Your task to perform on an android device: Open display settings Image 0: 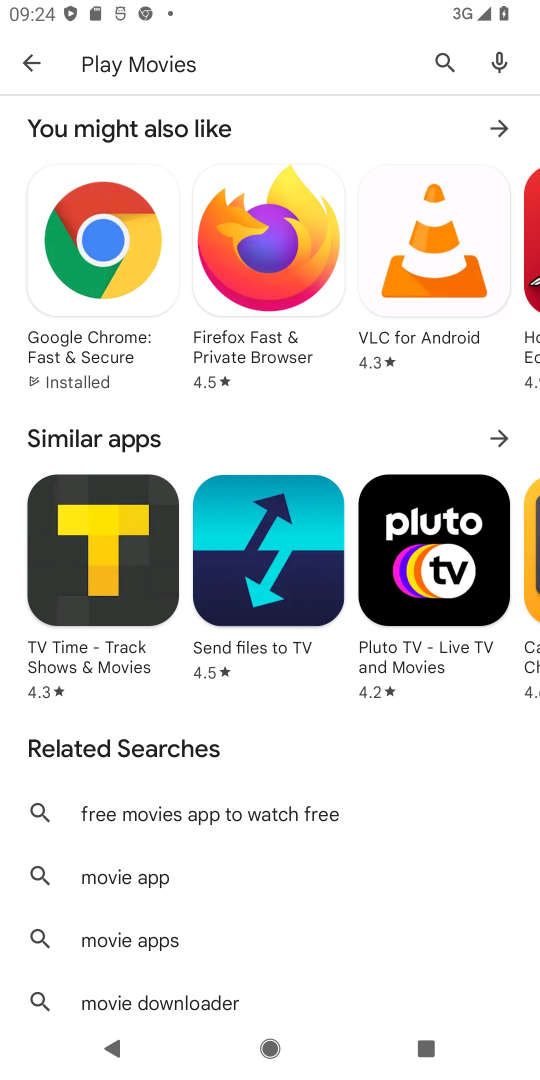
Step 0: press home button
Your task to perform on an android device: Open display settings Image 1: 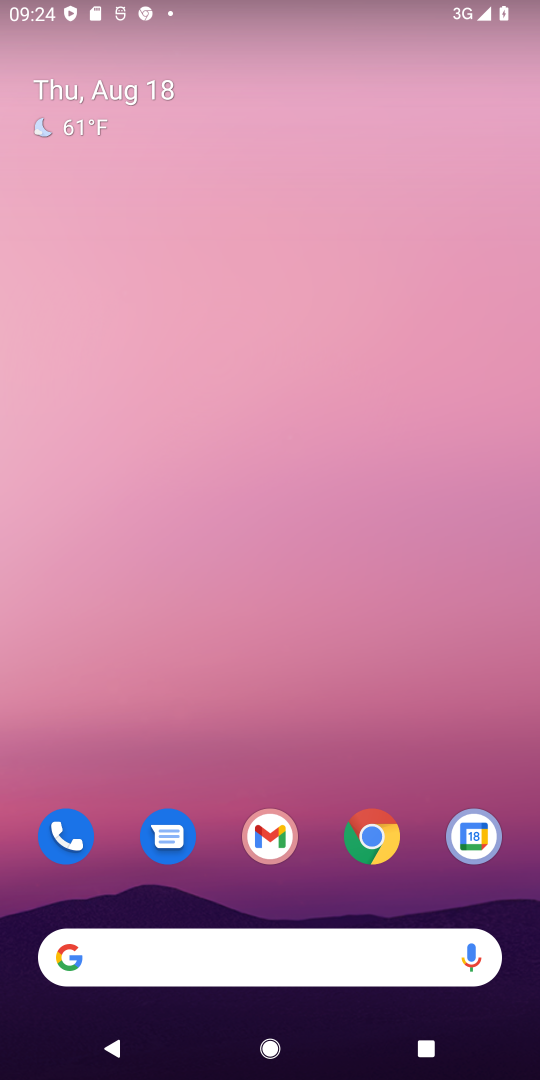
Step 1: drag from (417, 756) to (474, 106)
Your task to perform on an android device: Open display settings Image 2: 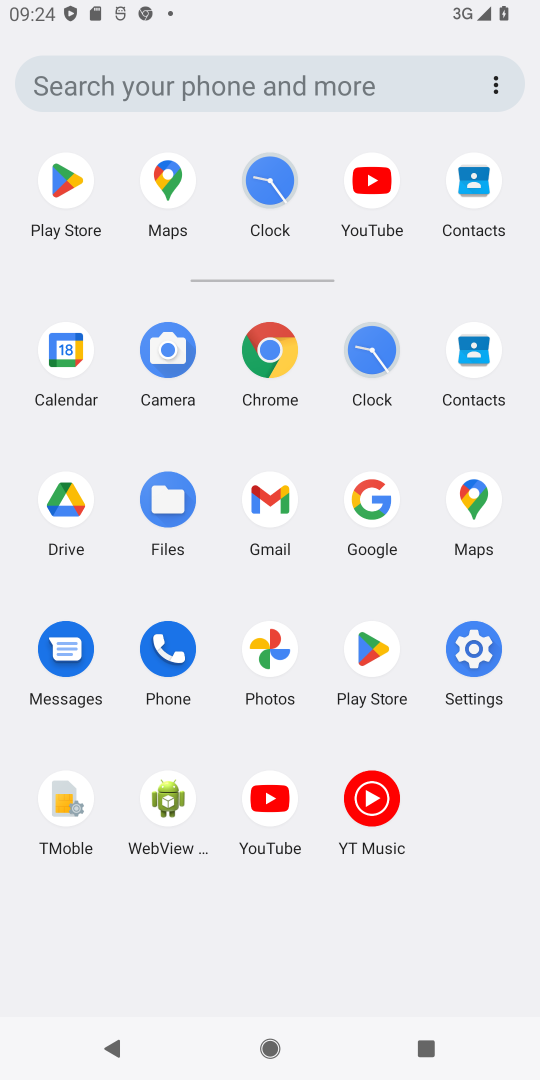
Step 2: click (484, 650)
Your task to perform on an android device: Open display settings Image 3: 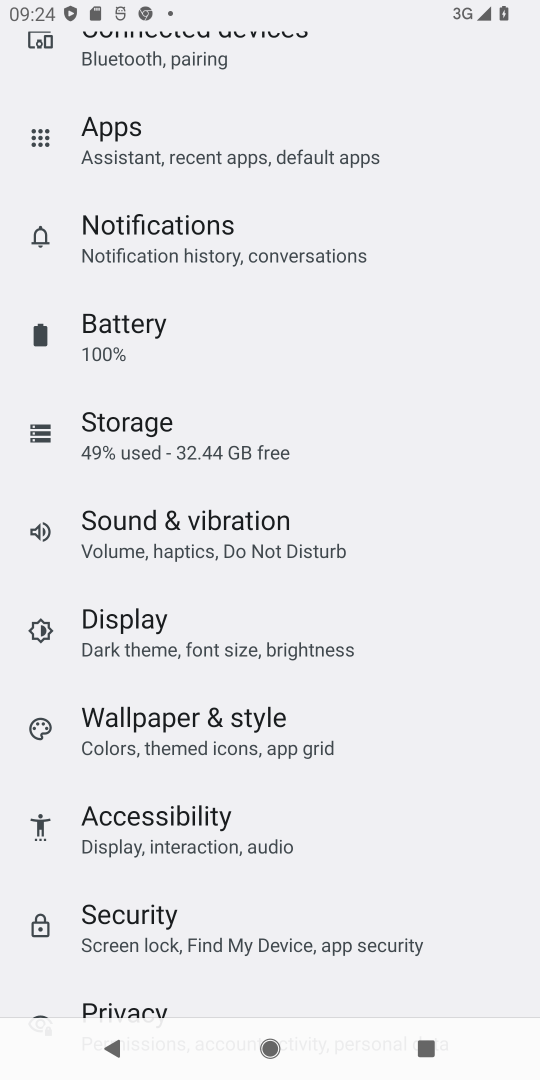
Step 3: drag from (243, 266) to (276, 814)
Your task to perform on an android device: Open display settings Image 4: 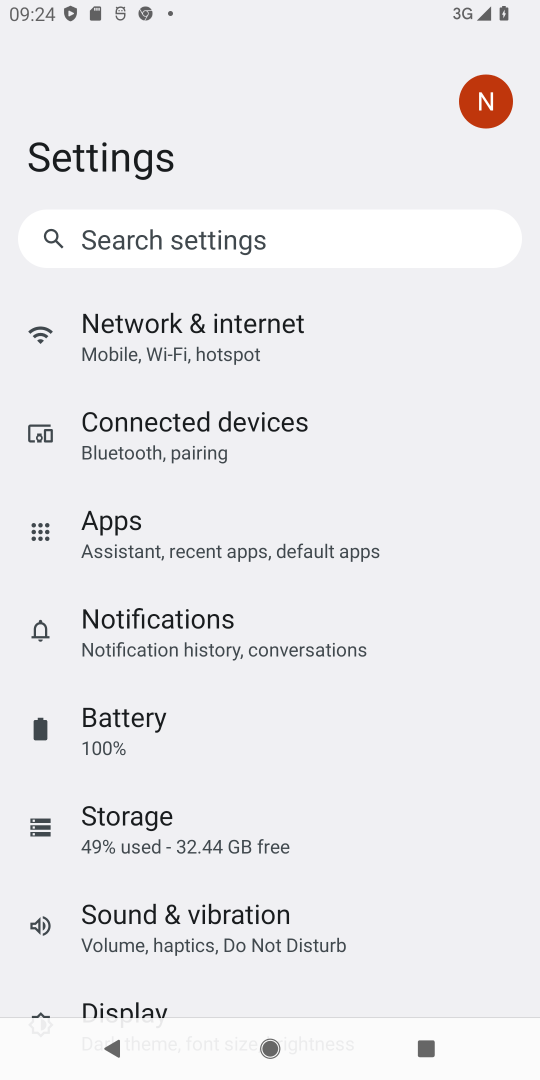
Step 4: drag from (288, 797) to (363, 264)
Your task to perform on an android device: Open display settings Image 5: 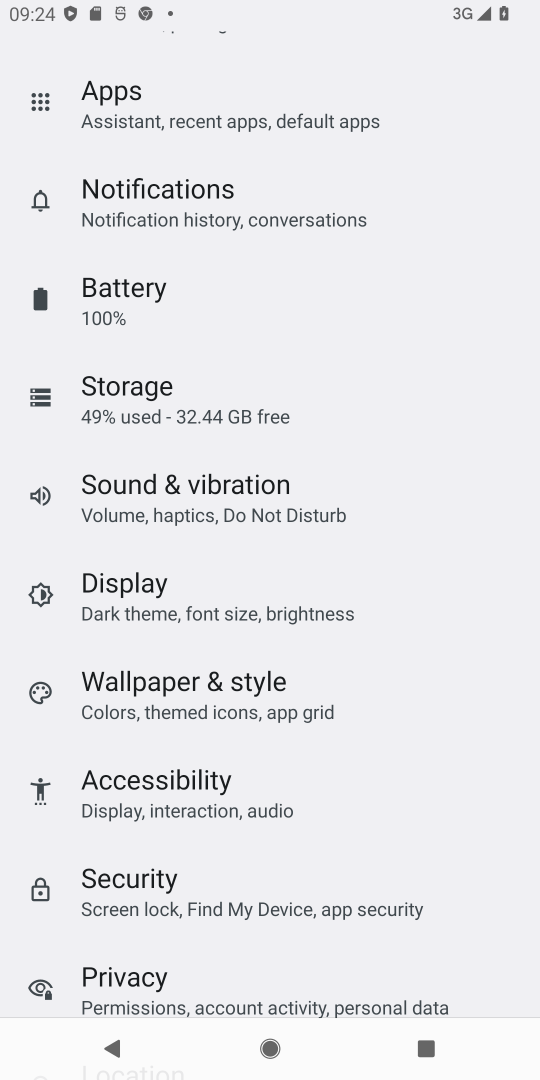
Step 5: drag from (351, 870) to (414, 348)
Your task to perform on an android device: Open display settings Image 6: 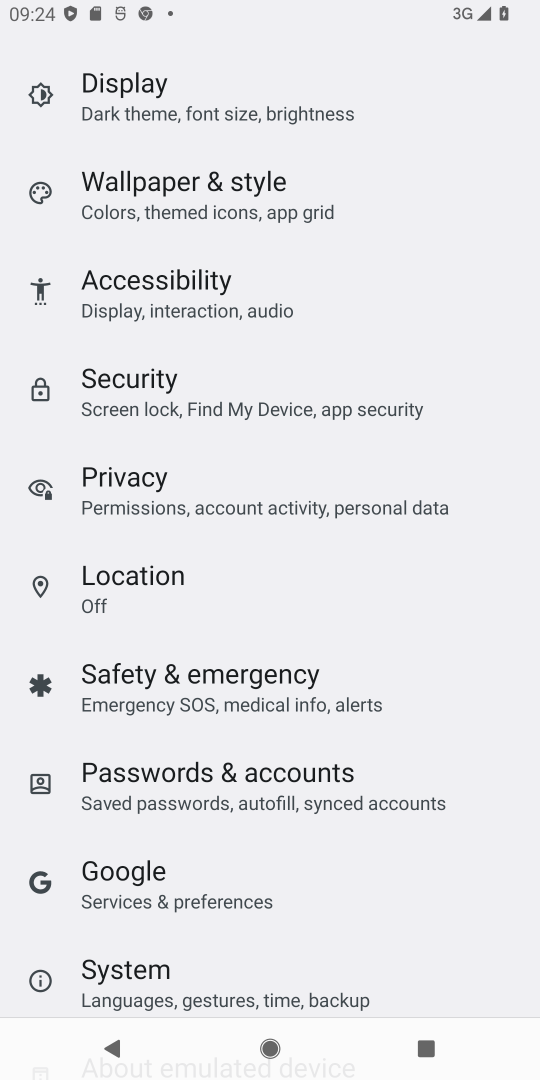
Step 6: drag from (326, 286) to (338, 918)
Your task to perform on an android device: Open display settings Image 7: 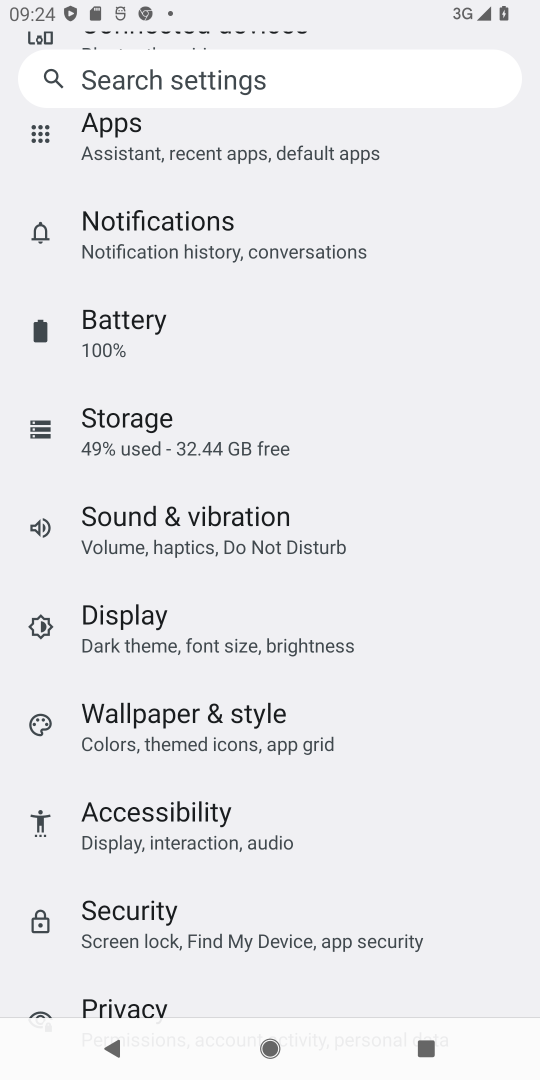
Step 7: drag from (335, 356) to (337, 865)
Your task to perform on an android device: Open display settings Image 8: 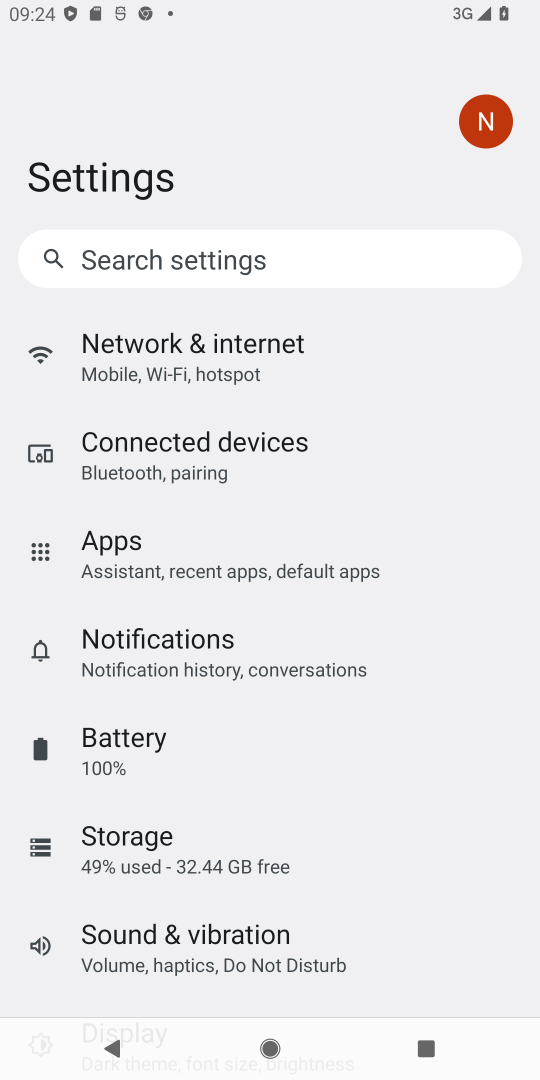
Step 8: drag from (329, 838) to (428, 173)
Your task to perform on an android device: Open display settings Image 9: 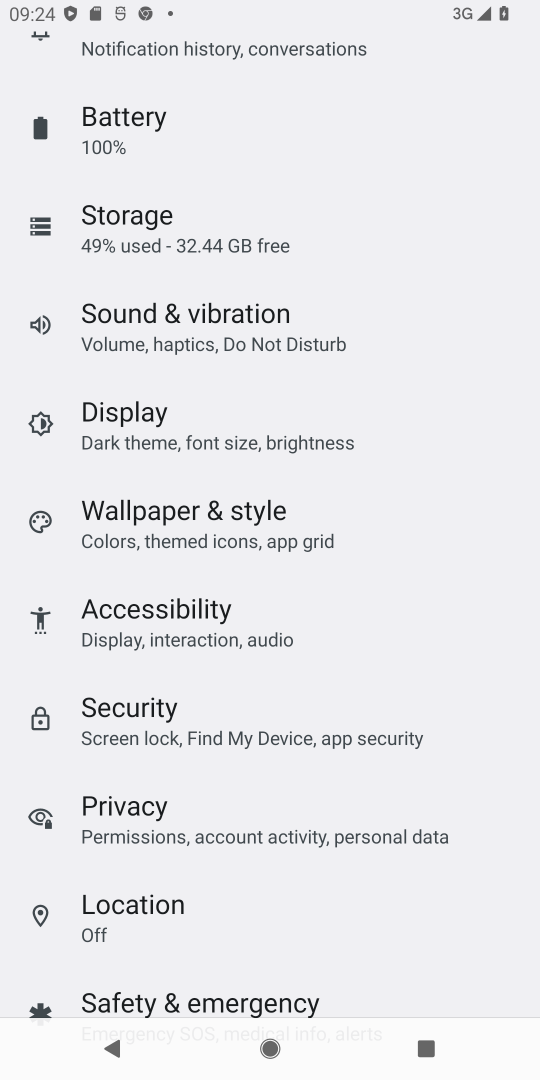
Step 9: click (148, 422)
Your task to perform on an android device: Open display settings Image 10: 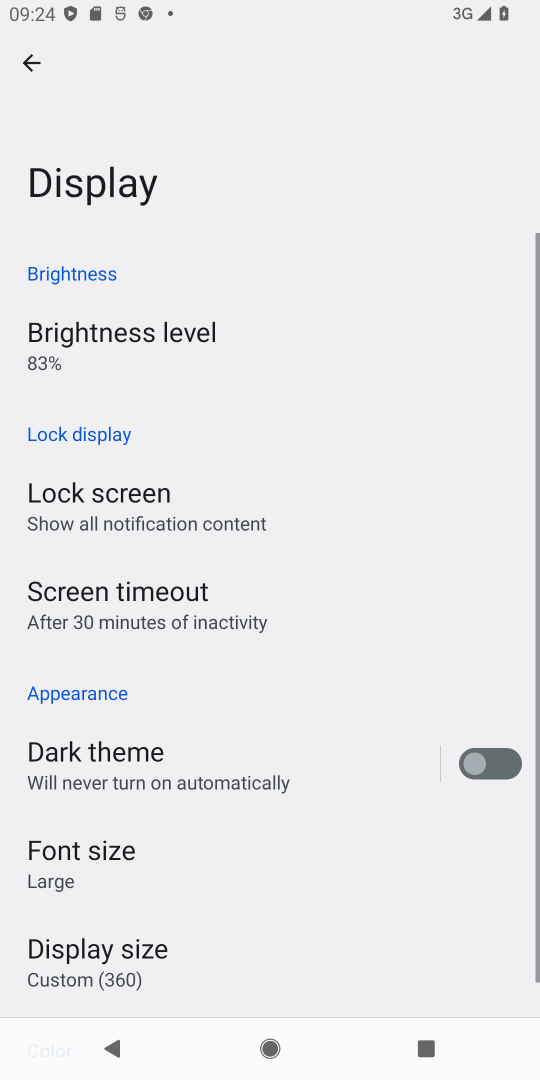
Step 10: task complete